Your task to perform on an android device: Is it going to rain tomorrow? Image 0: 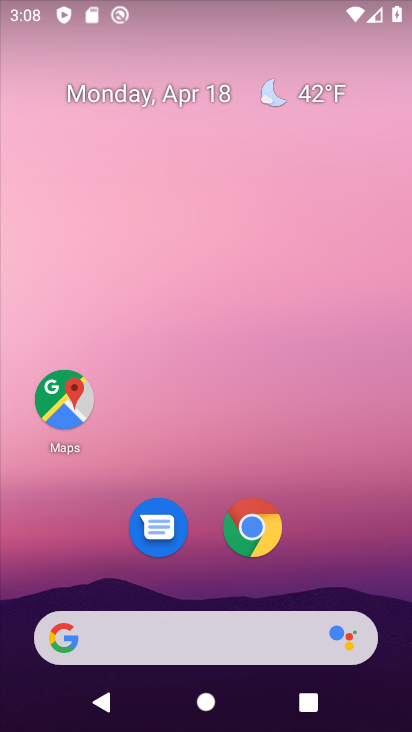
Step 0: click (314, 93)
Your task to perform on an android device: Is it going to rain tomorrow? Image 1: 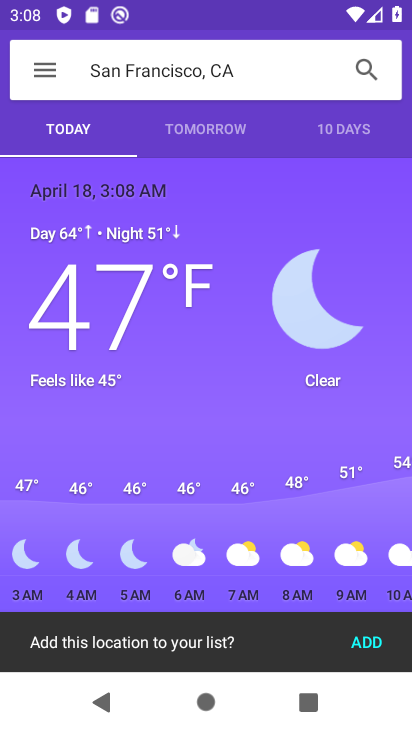
Step 1: drag from (245, 510) to (239, 335)
Your task to perform on an android device: Is it going to rain tomorrow? Image 2: 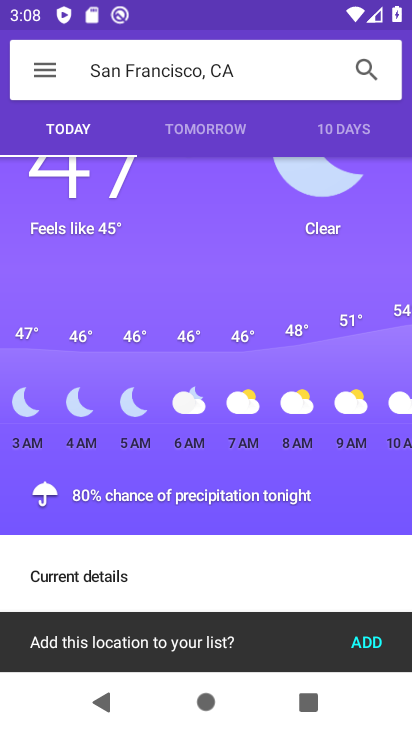
Step 2: click (208, 128)
Your task to perform on an android device: Is it going to rain tomorrow? Image 3: 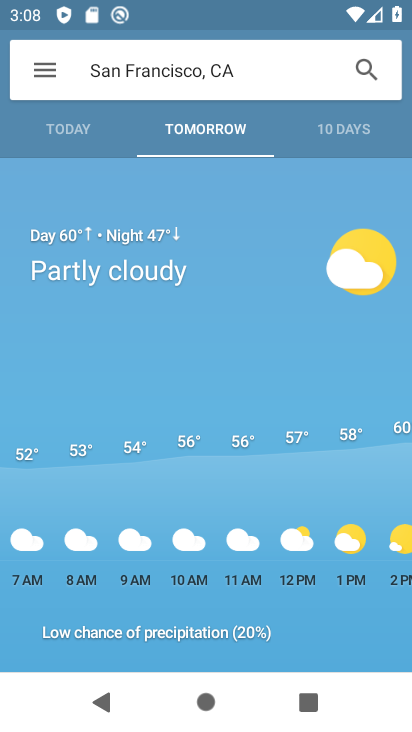
Step 3: task complete